Your task to perform on an android device: toggle sleep mode Image 0: 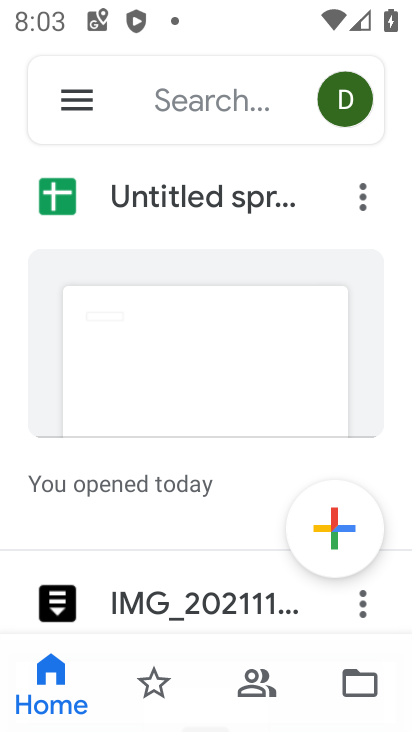
Step 0: press home button
Your task to perform on an android device: toggle sleep mode Image 1: 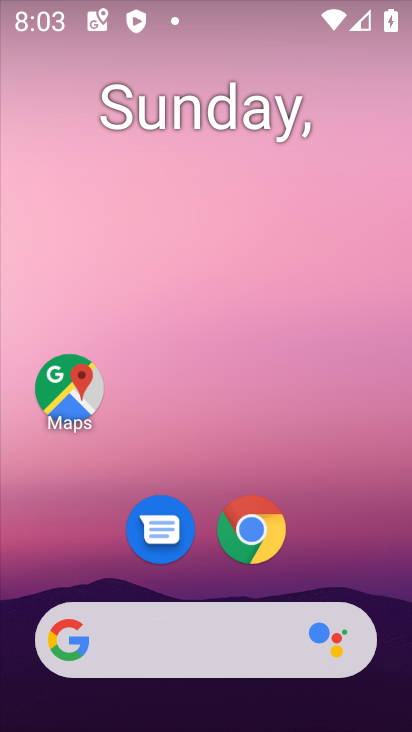
Step 1: drag from (366, 524) to (367, 75)
Your task to perform on an android device: toggle sleep mode Image 2: 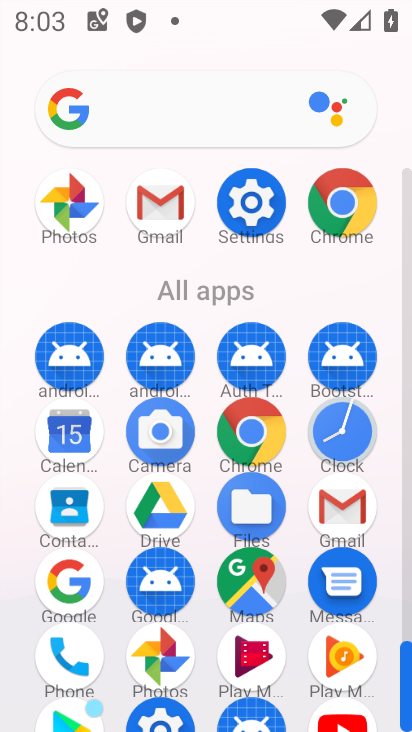
Step 2: click (252, 179)
Your task to perform on an android device: toggle sleep mode Image 3: 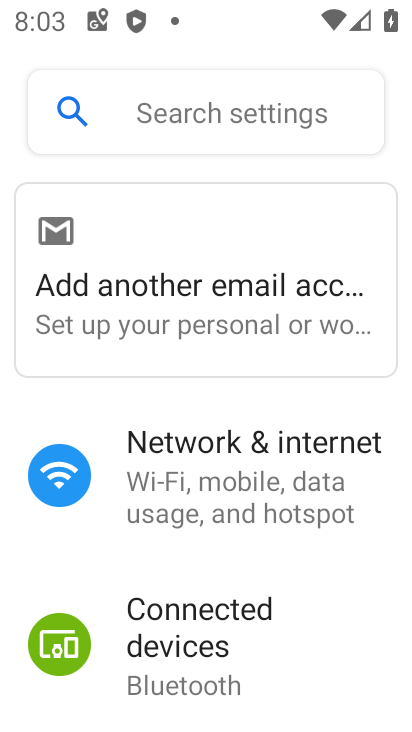
Step 3: click (236, 128)
Your task to perform on an android device: toggle sleep mode Image 4: 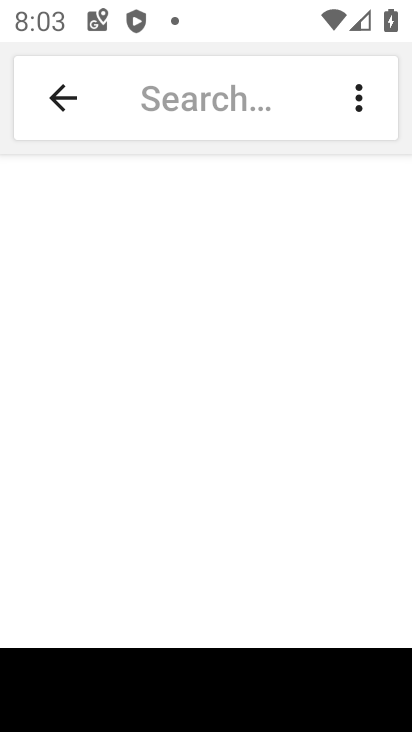
Step 4: type "sleep mode"
Your task to perform on an android device: toggle sleep mode Image 5: 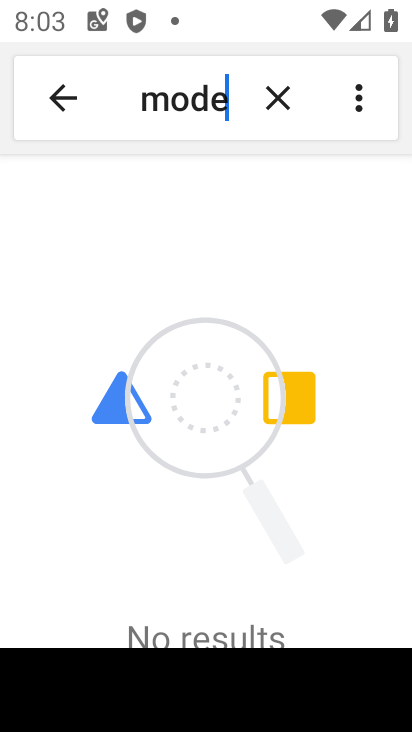
Step 5: task complete